Your task to perform on an android device: open app "LinkedIn" (install if not already installed) and enter user name: "dirt@inbox.com" and password: "receptionist" Image 0: 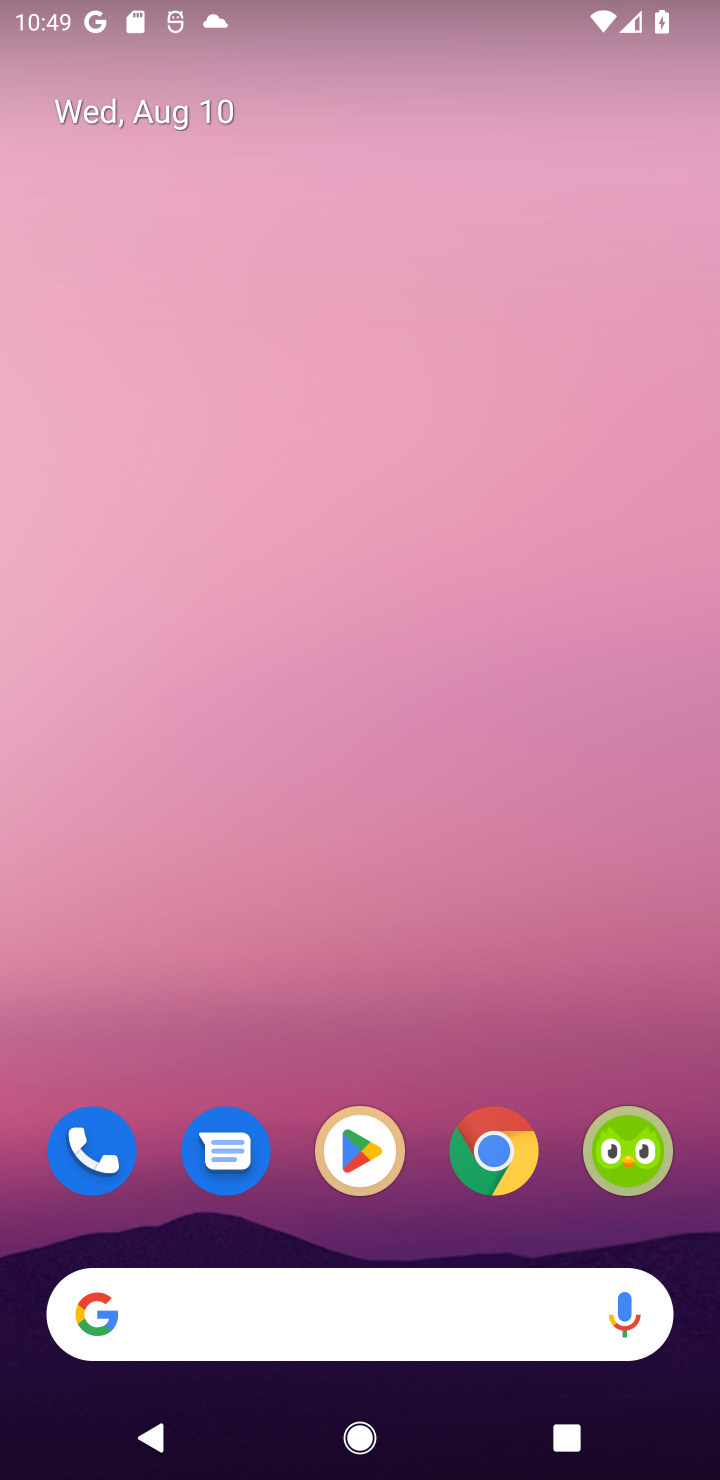
Step 0: click (366, 1164)
Your task to perform on an android device: open app "LinkedIn" (install if not already installed) and enter user name: "dirt@inbox.com" and password: "receptionist" Image 1: 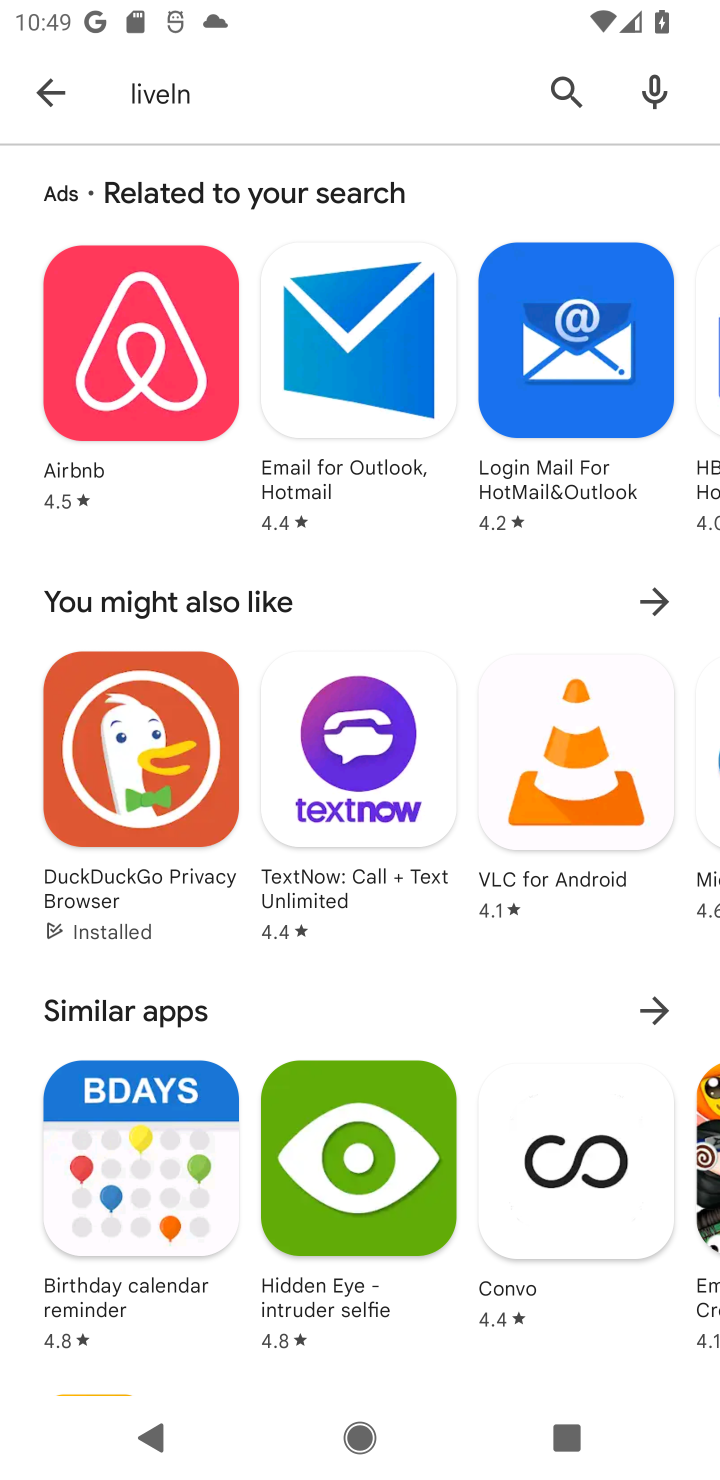
Step 1: click (554, 100)
Your task to perform on an android device: open app "LinkedIn" (install if not already installed) and enter user name: "dirt@inbox.com" and password: "receptionist" Image 2: 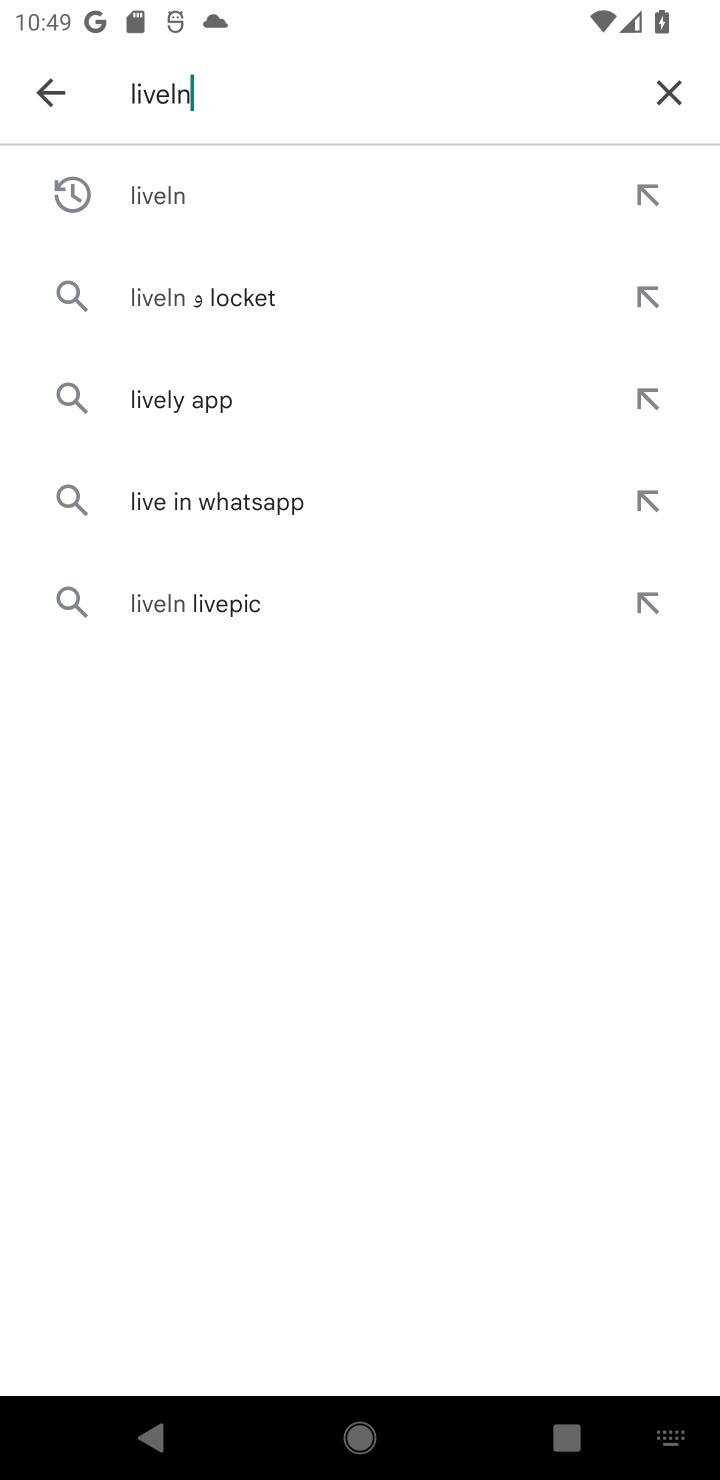
Step 2: click (676, 92)
Your task to perform on an android device: open app "LinkedIn" (install if not already installed) and enter user name: "dirt@inbox.com" and password: "receptionist" Image 3: 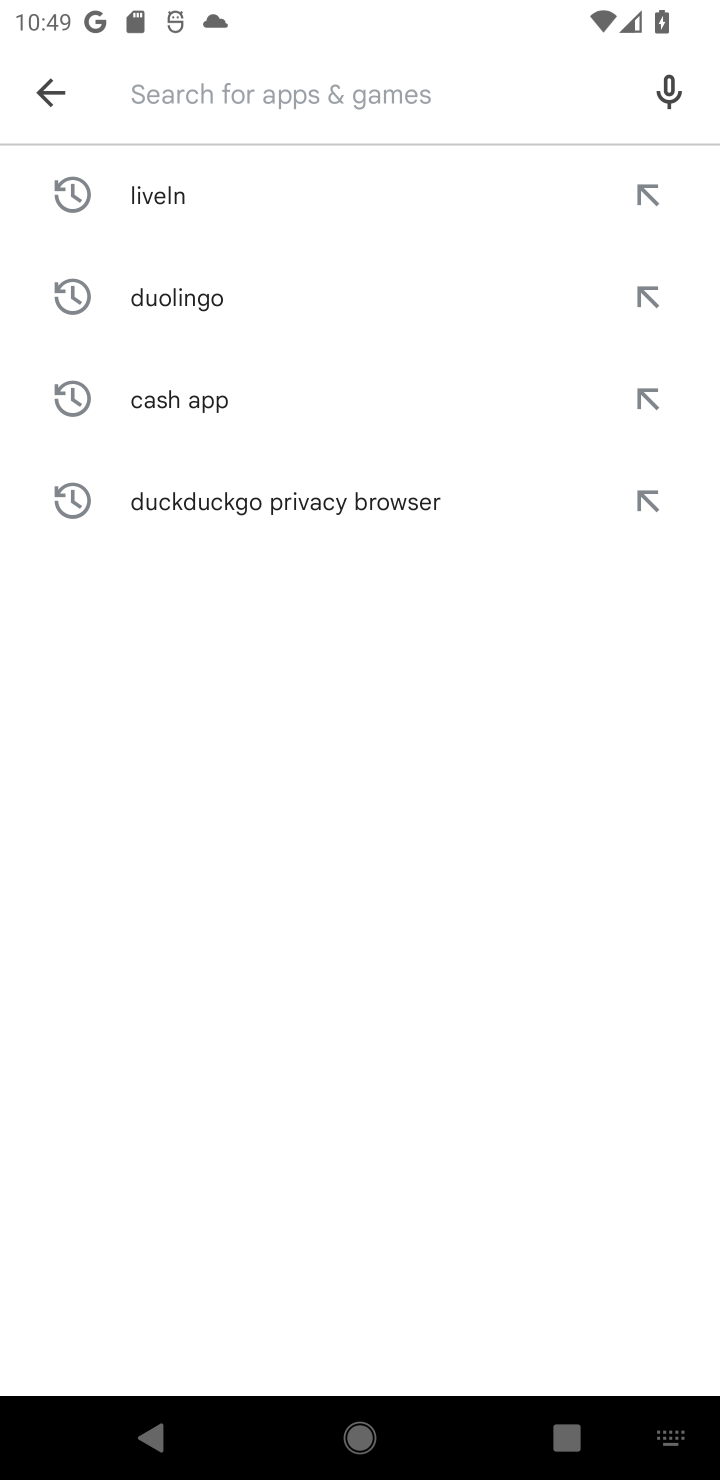
Step 3: click (281, 84)
Your task to perform on an android device: open app "LinkedIn" (install if not already installed) and enter user name: "dirt@inbox.com" and password: "receptionist" Image 4: 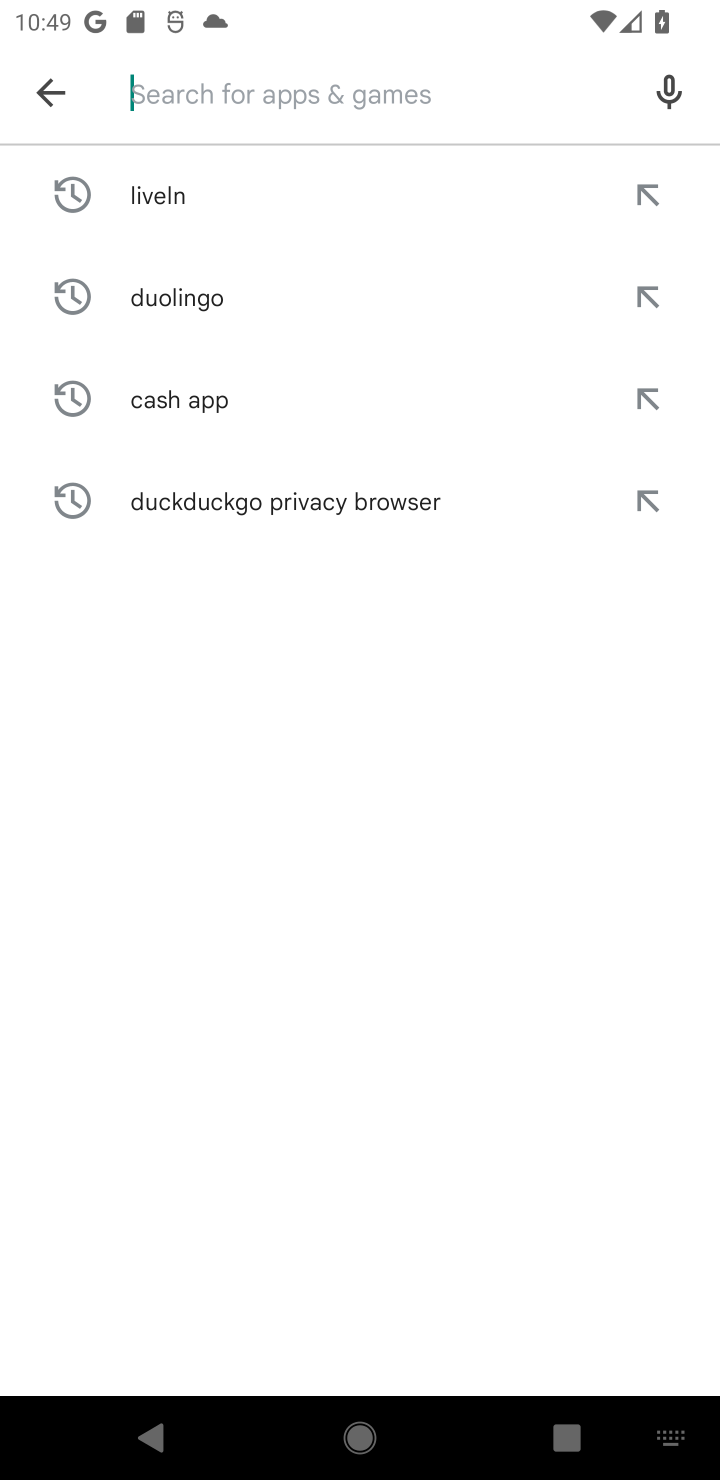
Step 4: click (269, 74)
Your task to perform on an android device: open app "LinkedIn" (install if not already installed) and enter user name: "dirt@inbox.com" and password: "receptionist" Image 5: 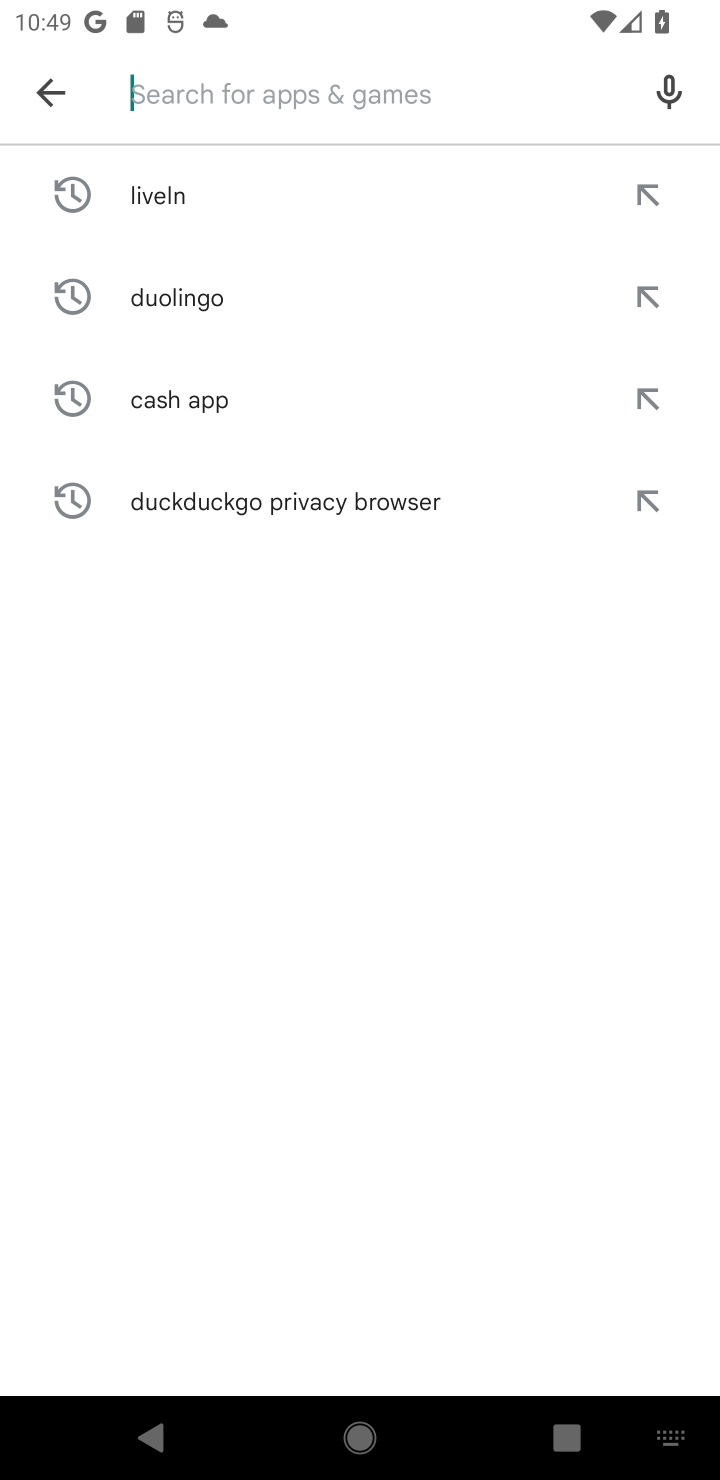
Step 5: type "LinkedIn"
Your task to perform on an android device: open app "LinkedIn" (install if not already installed) and enter user name: "dirt@inbox.com" and password: "receptionist" Image 6: 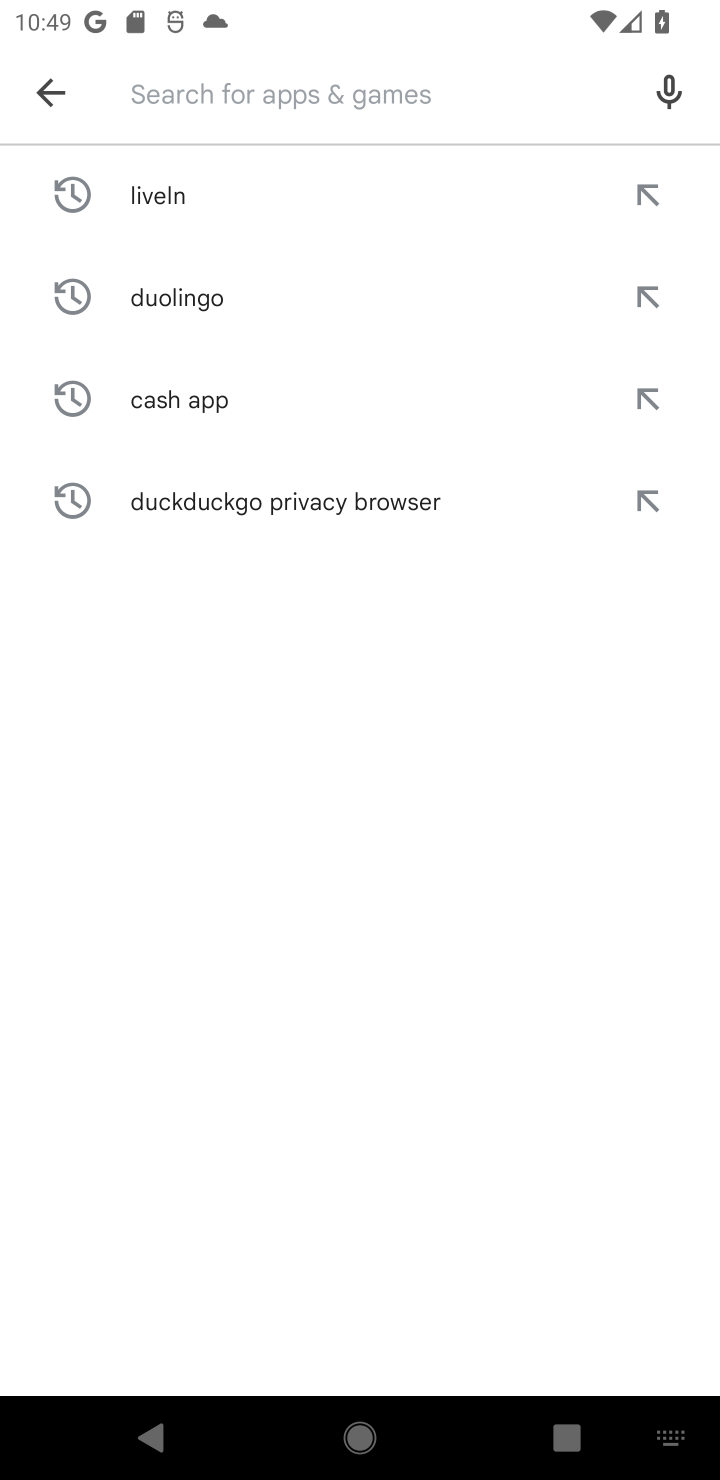
Step 6: click (398, 846)
Your task to perform on an android device: open app "LinkedIn" (install if not already installed) and enter user name: "dirt@inbox.com" and password: "receptionist" Image 7: 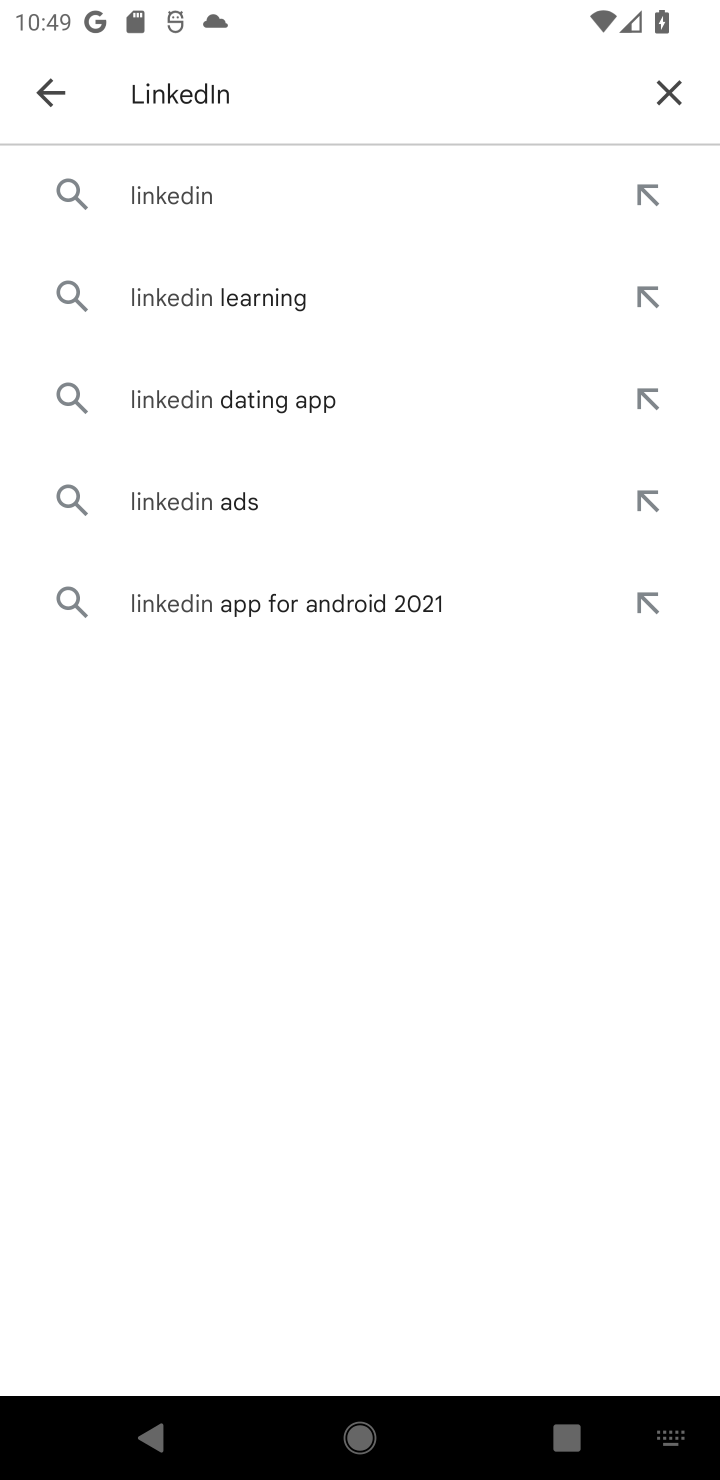
Step 7: click (236, 181)
Your task to perform on an android device: open app "LinkedIn" (install if not already installed) and enter user name: "dirt@inbox.com" and password: "receptionist" Image 8: 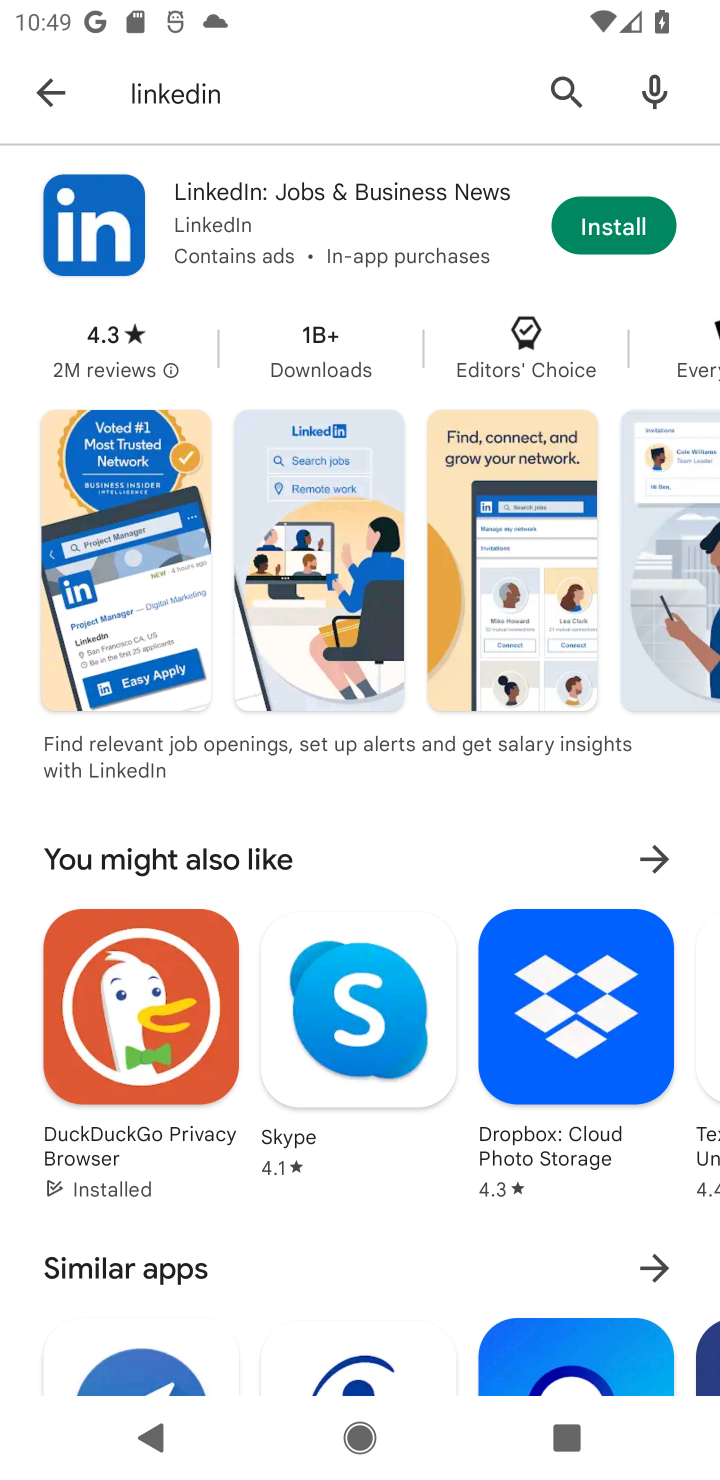
Step 8: click (628, 214)
Your task to perform on an android device: open app "LinkedIn" (install if not already installed) and enter user name: "dirt@inbox.com" and password: "receptionist" Image 9: 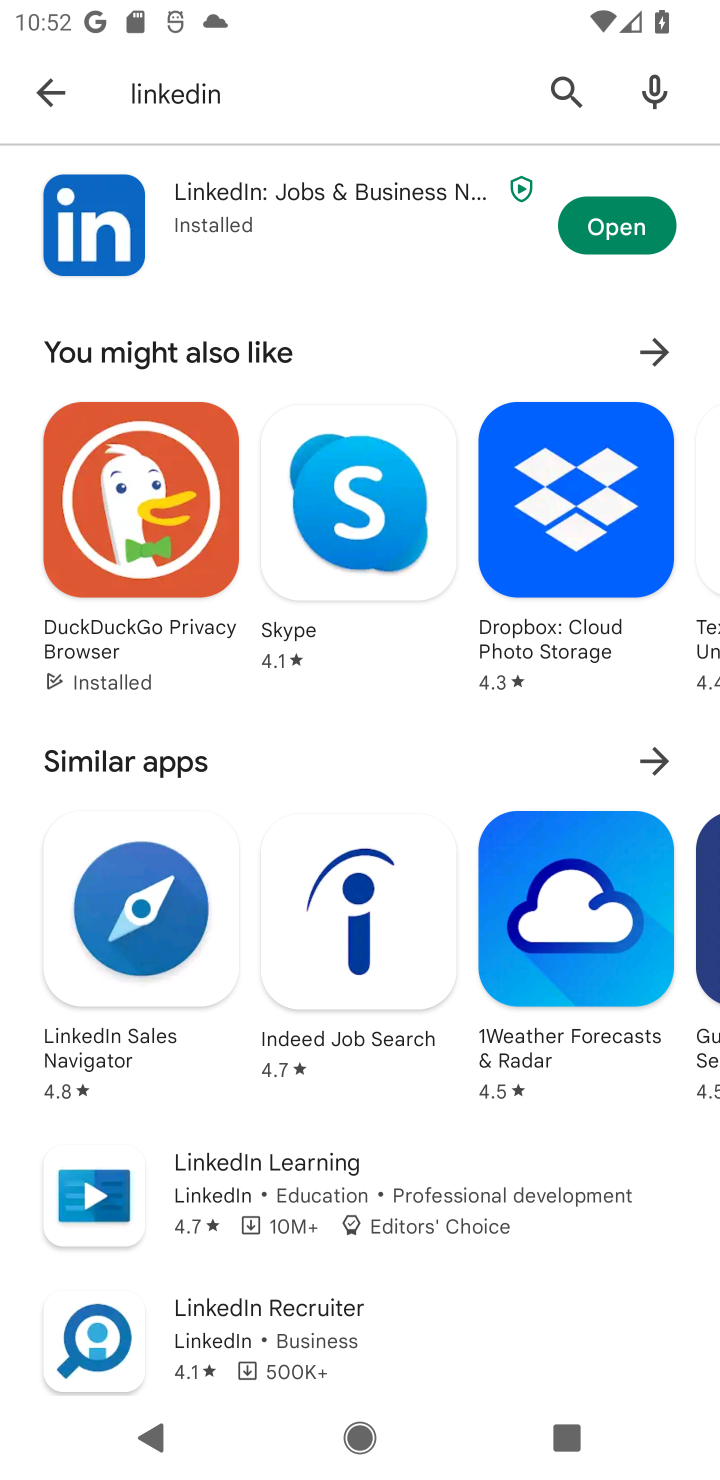
Step 9: click (599, 235)
Your task to perform on an android device: open app "LinkedIn" (install if not already installed) and enter user name: "dirt@inbox.com" and password: "receptionist" Image 10: 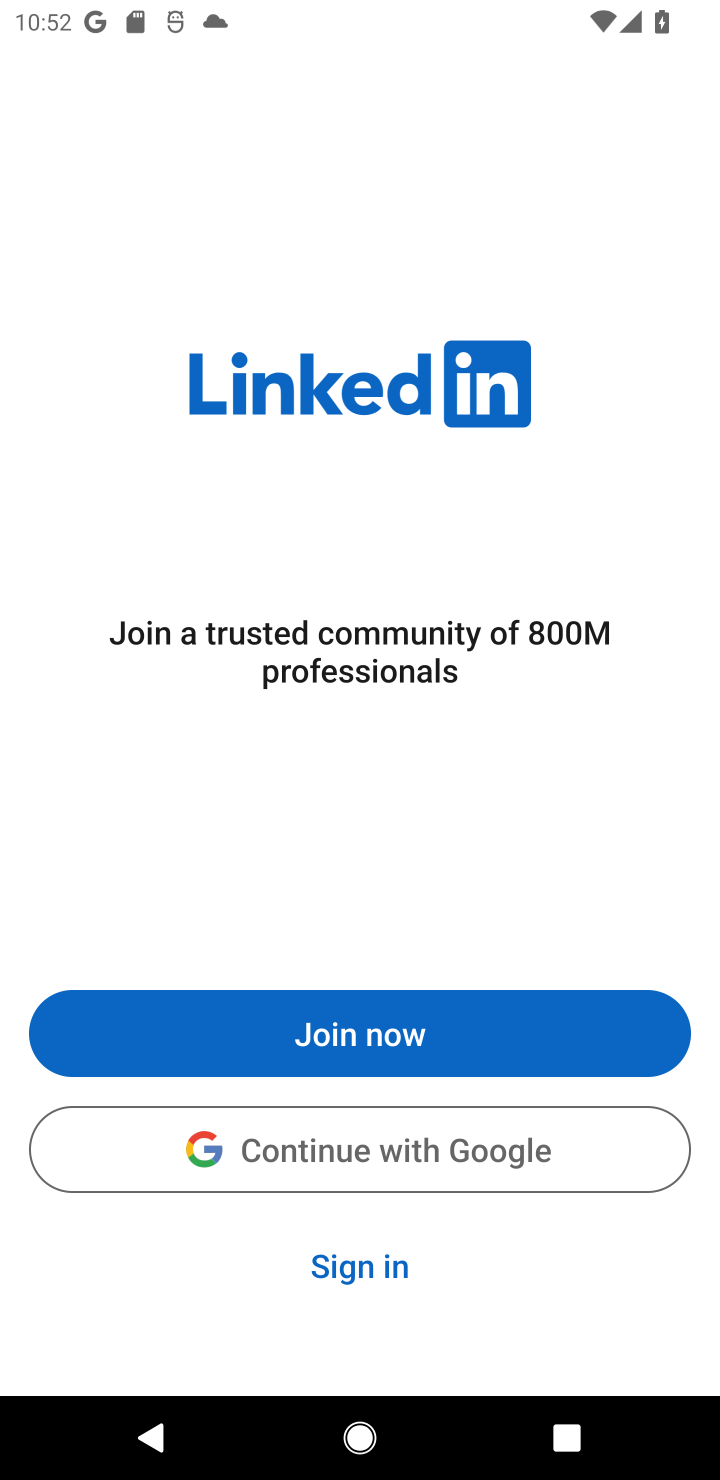
Step 10: click (362, 1275)
Your task to perform on an android device: open app "LinkedIn" (install if not already installed) and enter user name: "dirt@inbox.com" and password: "receptionist" Image 11: 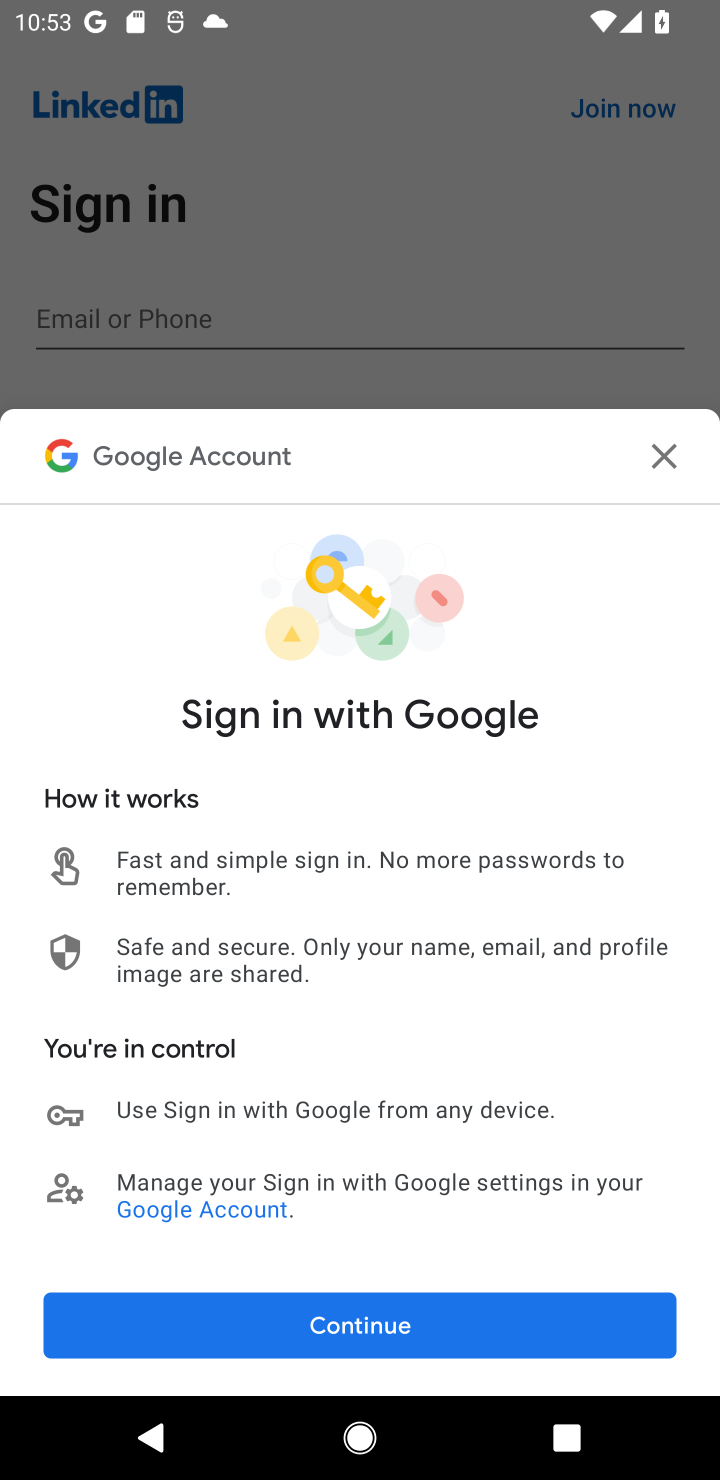
Step 11: click (292, 1304)
Your task to perform on an android device: open app "LinkedIn" (install if not already installed) and enter user name: "dirt@inbox.com" and password: "receptionist" Image 12: 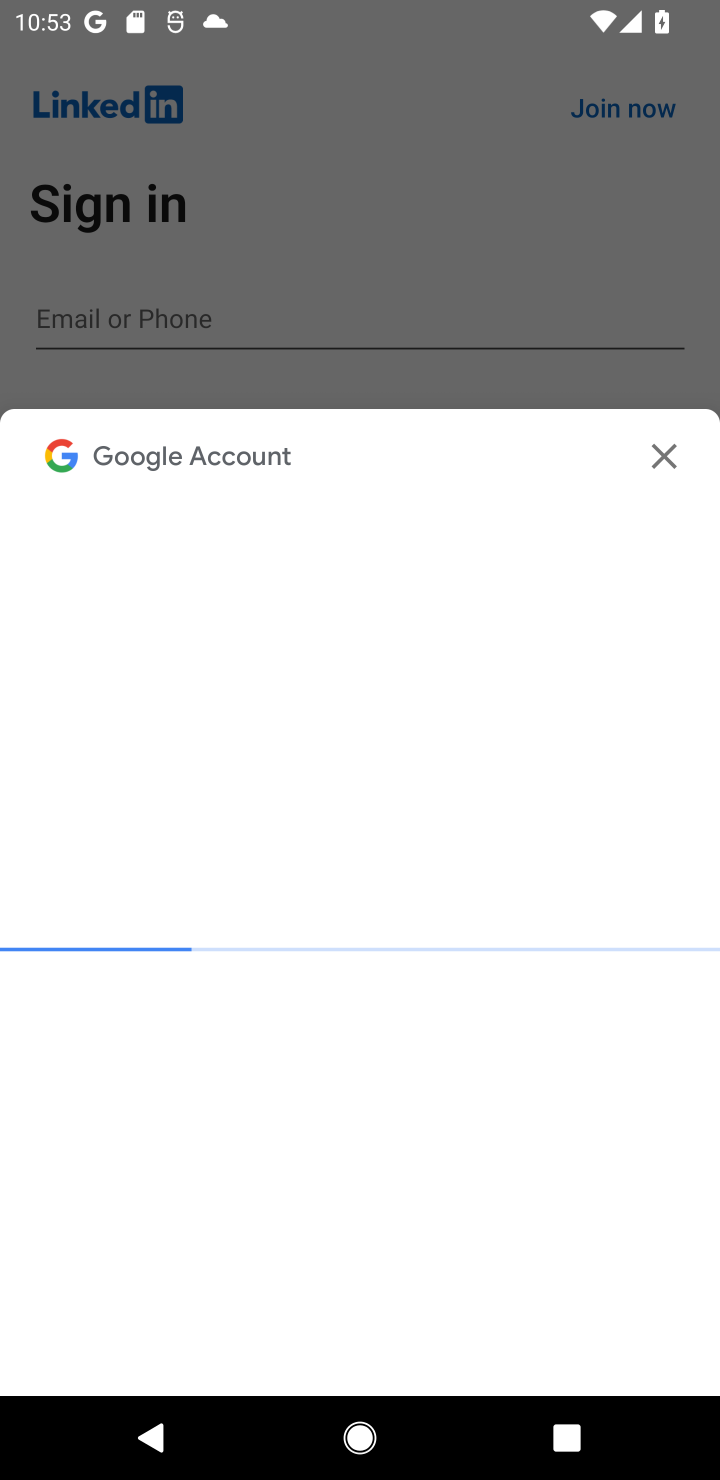
Step 12: click (663, 459)
Your task to perform on an android device: open app "LinkedIn" (install if not already installed) and enter user name: "dirt@inbox.com" and password: "receptionist" Image 13: 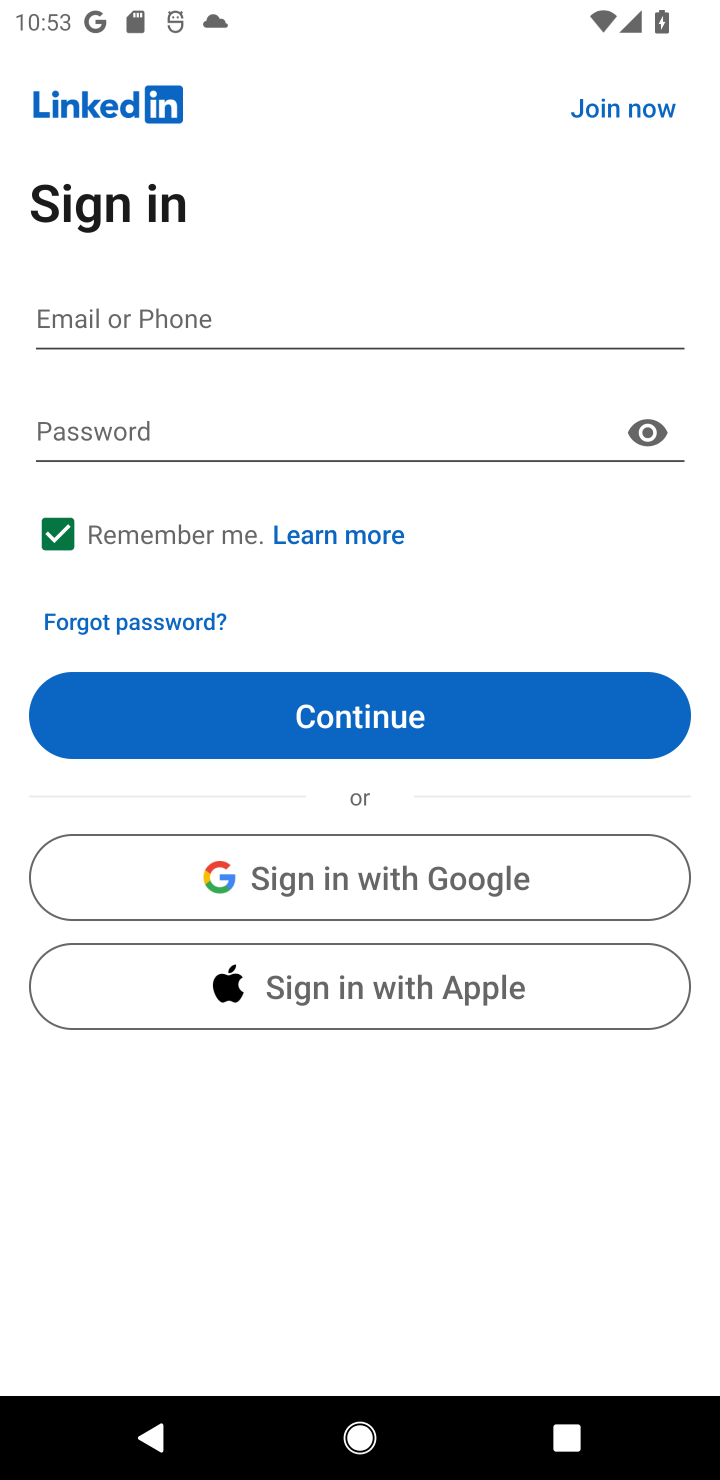
Step 13: click (143, 306)
Your task to perform on an android device: open app "LinkedIn" (install if not already installed) and enter user name: "dirt@inbox.com" and password: "receptionist" Image 14: 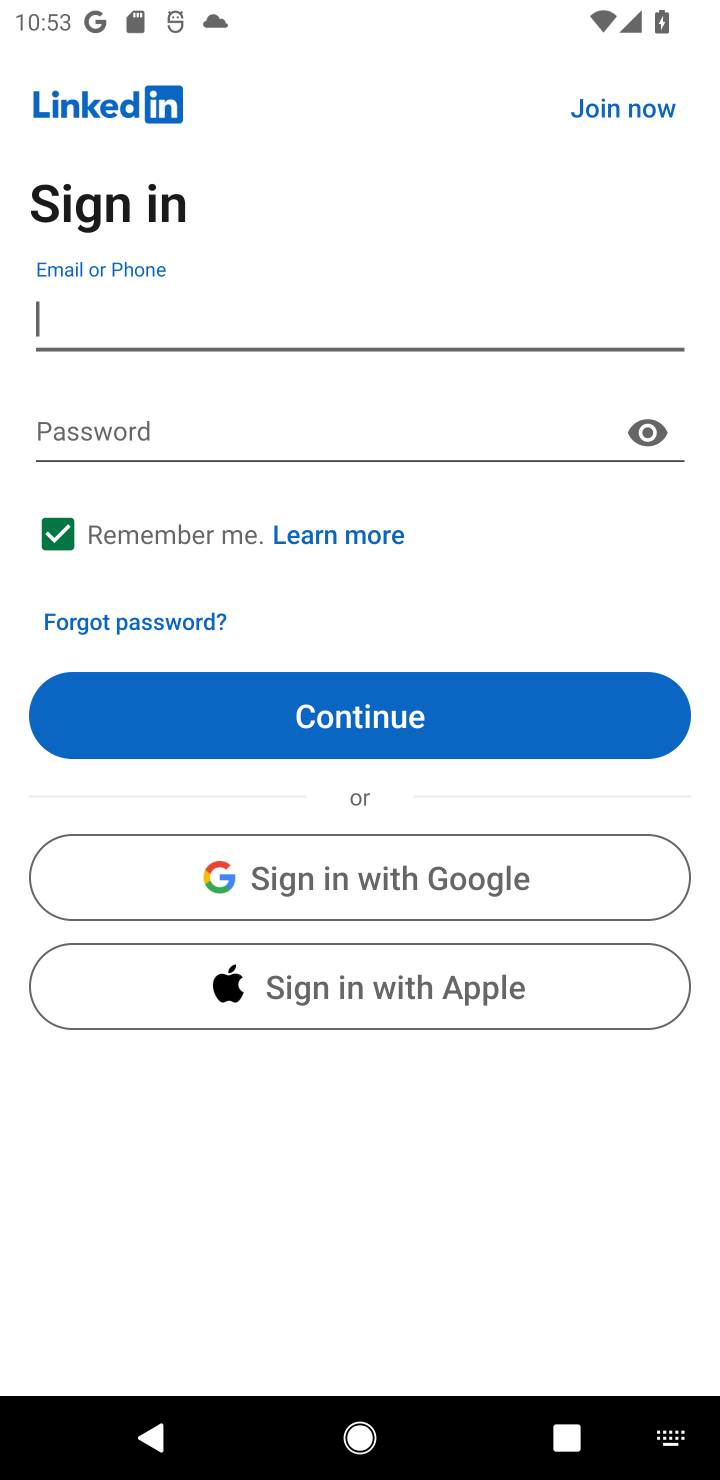
Step 14: type "dirt@inbox.com"
Your task to perform on an android device: open app "LinkedIn" (install if not already installed) and enter user name: "dirt@inbox.com" and password: "receptionist" Image 15: 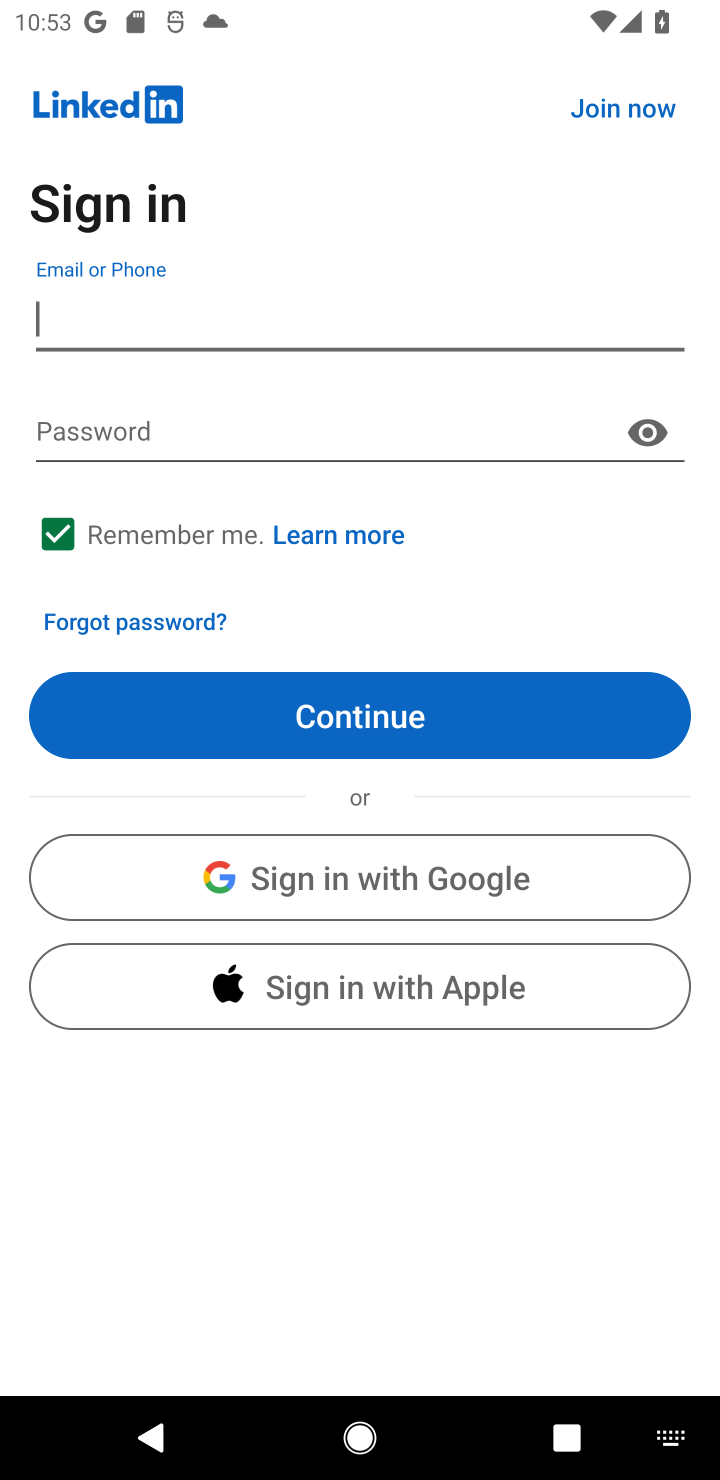
Step 15: click (278, 1230)
Your task to perform on an android device: open app "LinkedIn" (install if not already installed) and enter user name: "dirt@inbox.com" and password: "receptionist" Image 16: 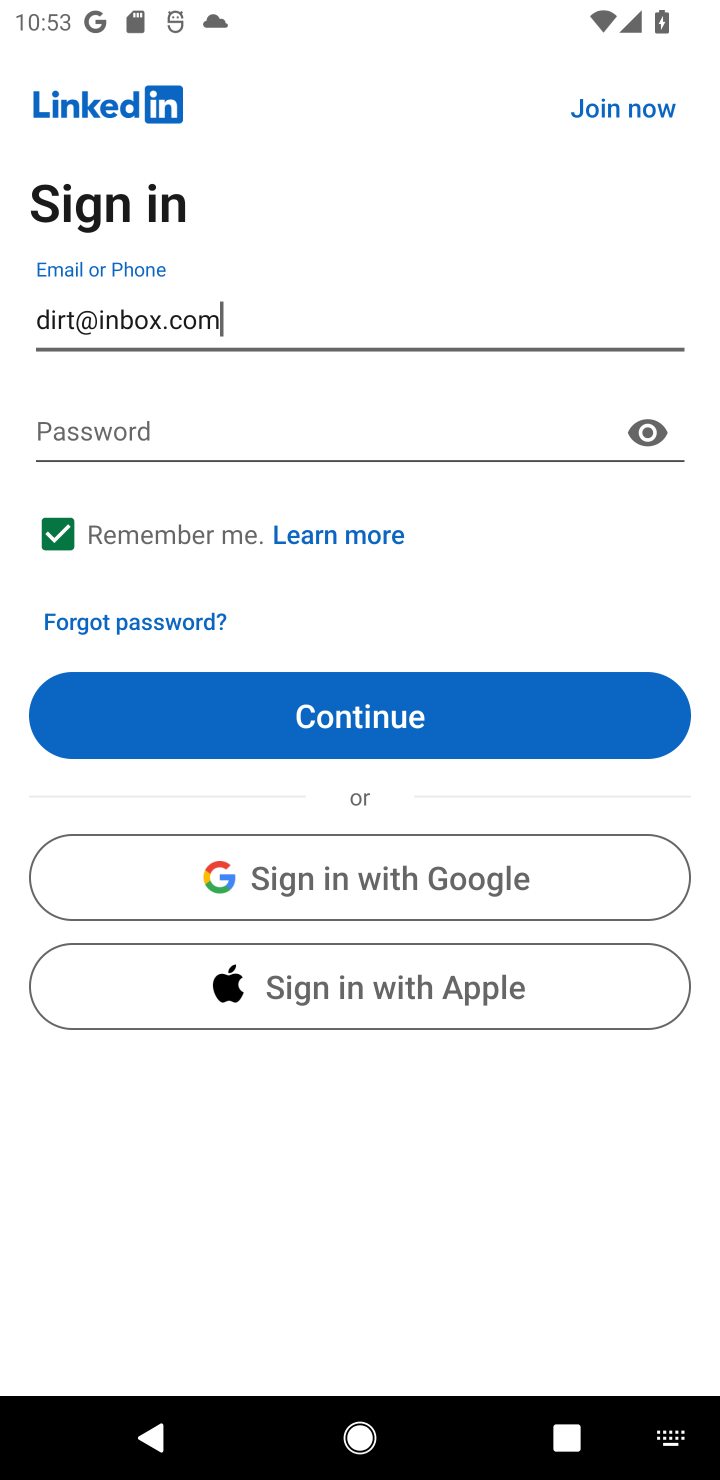
Step 16: click (155, 431)
Your task to perform on an android device: open app "LinkedIn" (install if not already installed) and enter user name: "dirt@inbox.com" and password: "receptionist" Image 17: 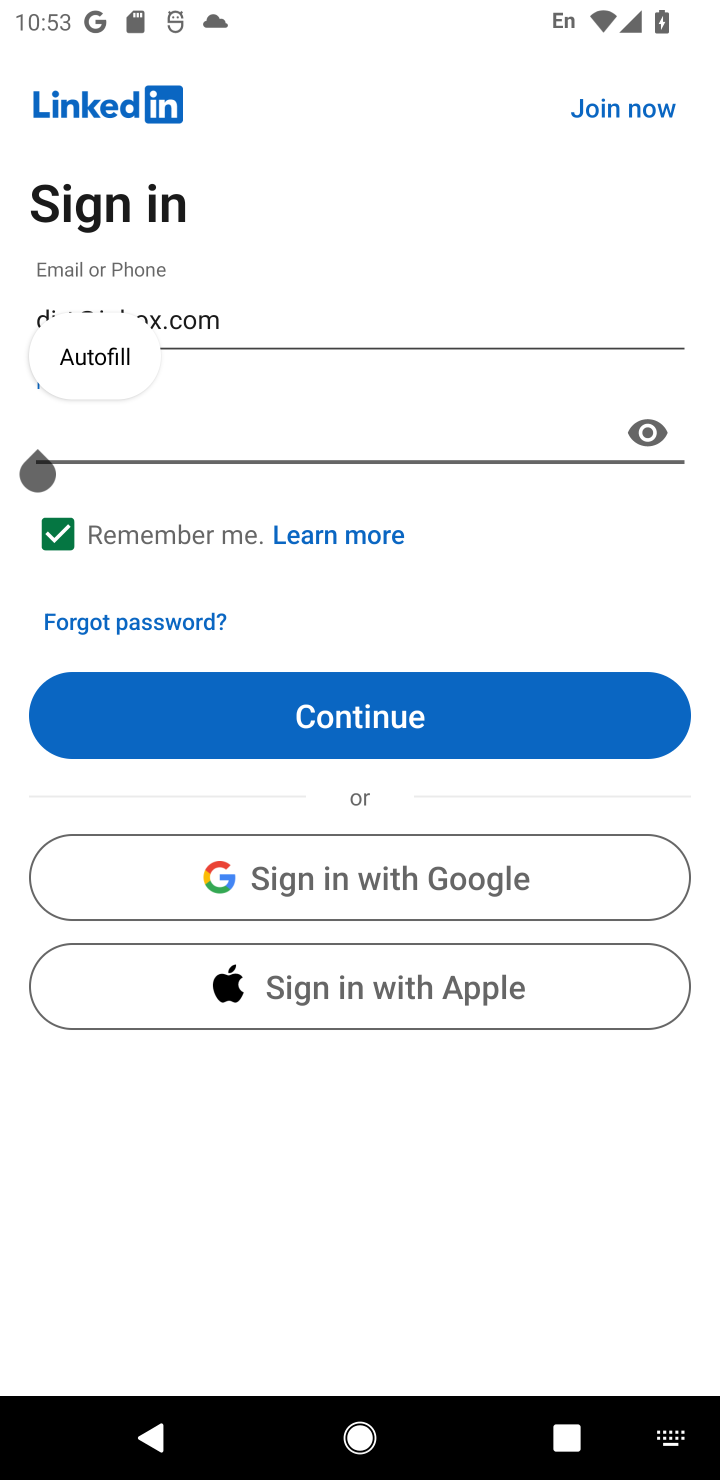
Step 17: click (276, 420)
Your task to perform on an android device: open app "LinkedIn" (install if not already installed) and enter user name: "dirt@inbox.com" and password: "receptionist" Image 18: 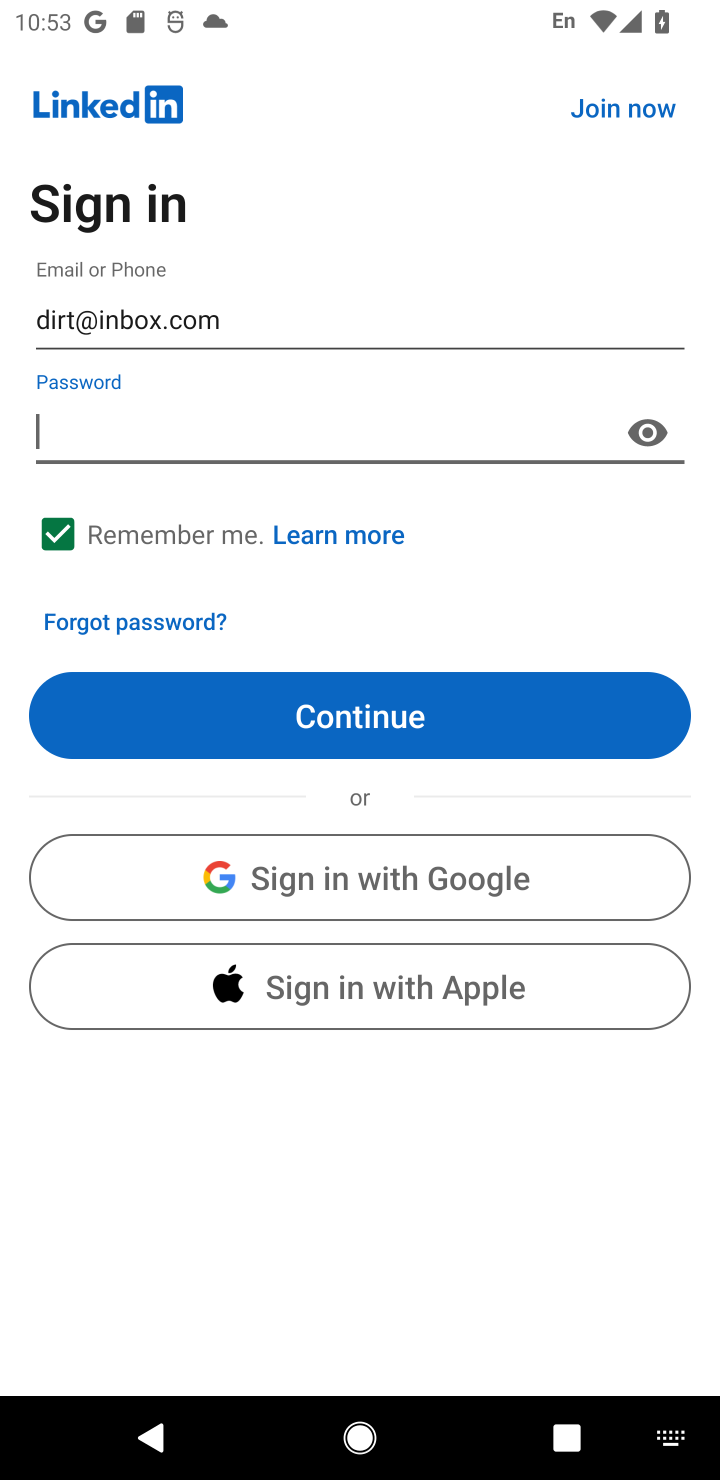
Step 18: type "receptionist"
Your task to perform on an android device: open app "LinkedIn" (install if not already installed) and enter user name: "dirt@inbox.com" and password: "receptionist" Image 19: 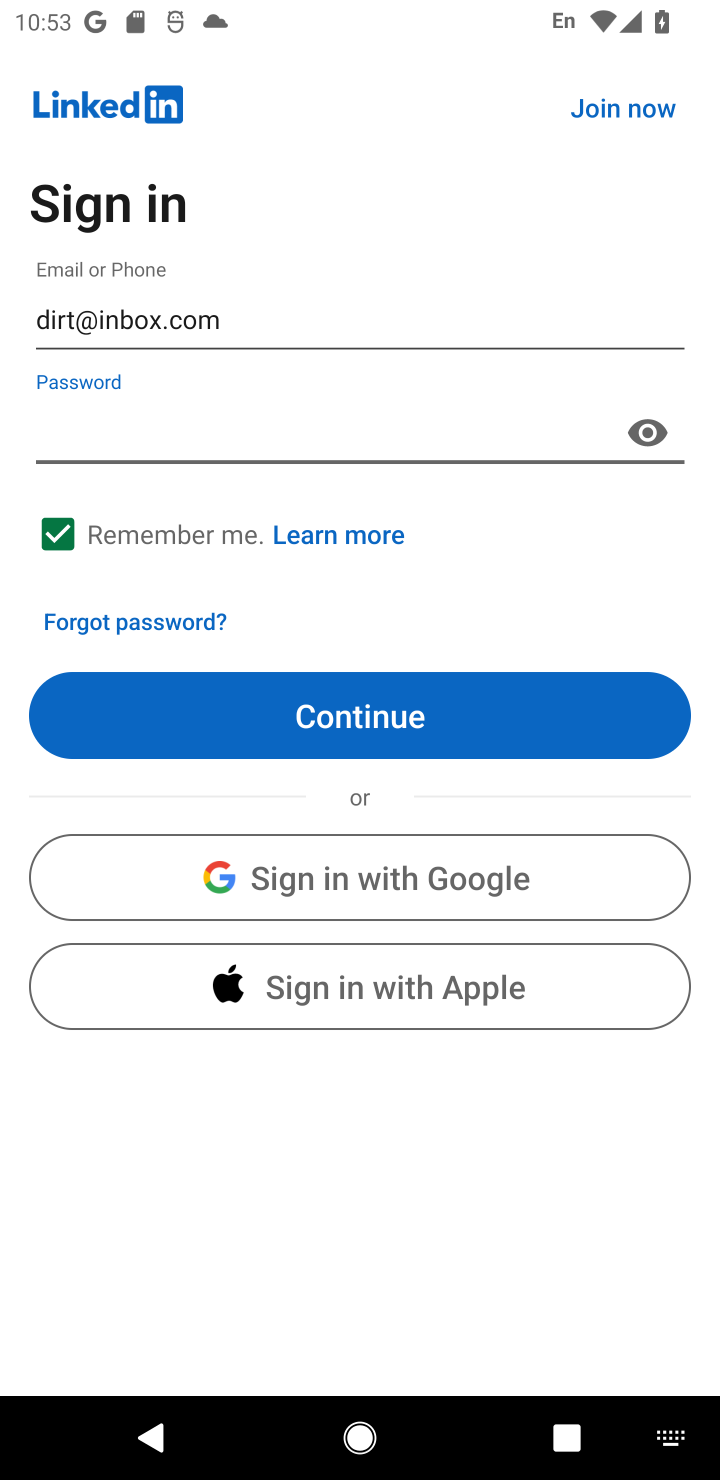
Step 19: click (528, 1214)
Your task to perform on an android device: open app "LinkedIn" (install if not already installed) and enter user name: "dirt@inbox.com" and password: "receptionist" Image 20: 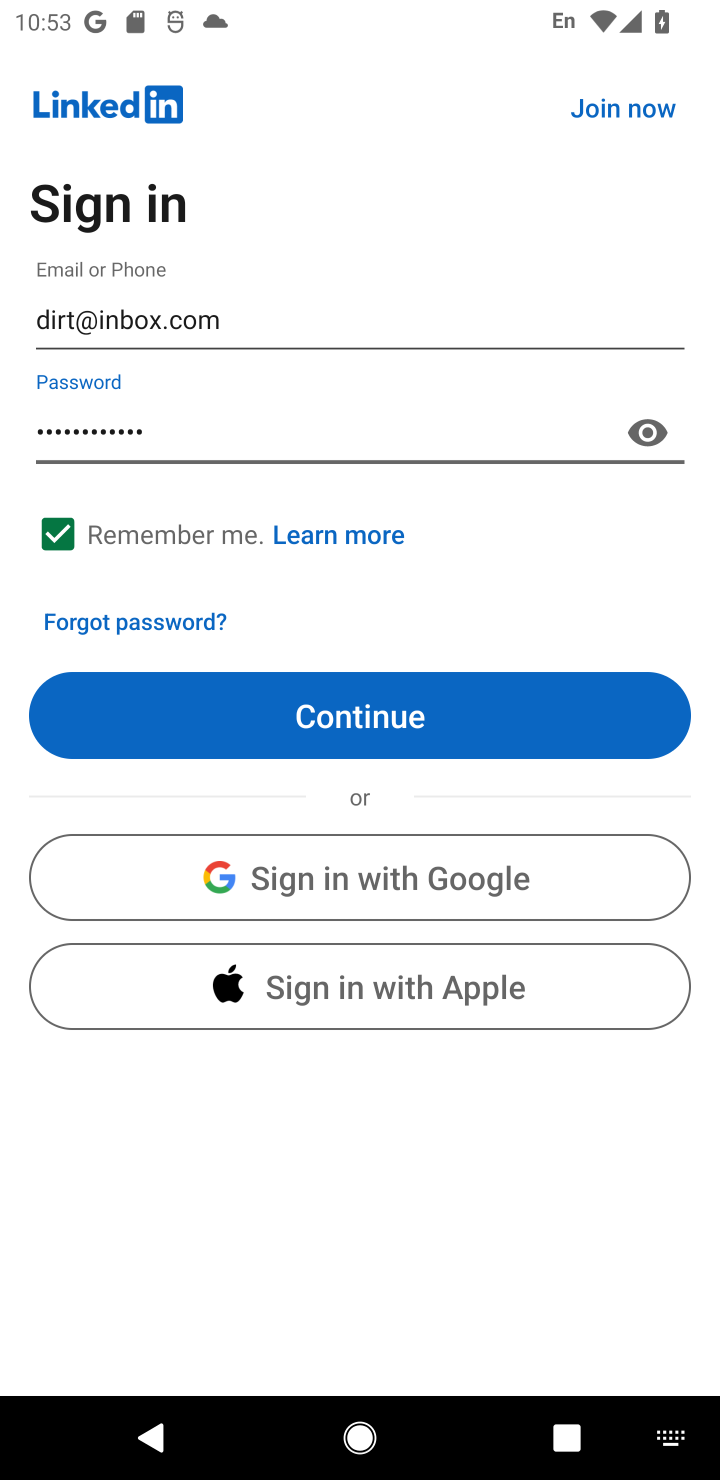
Step 20: task complete